Your task to perform on an android device: Go to Reddit.com Image 0: 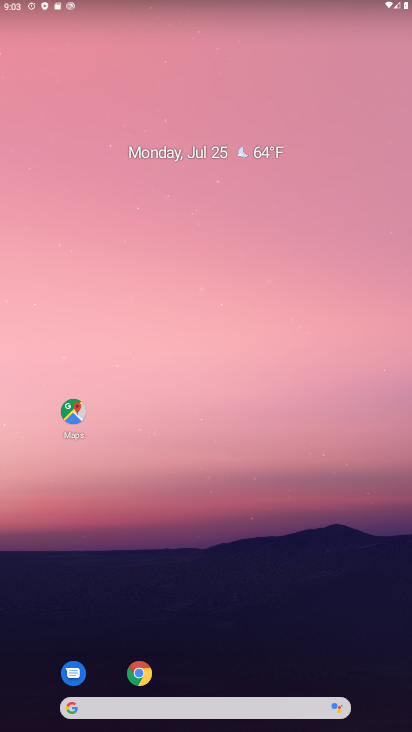
Step 0: press home button
Your task to perform on an android device: Go to Reddit.com Image 1: 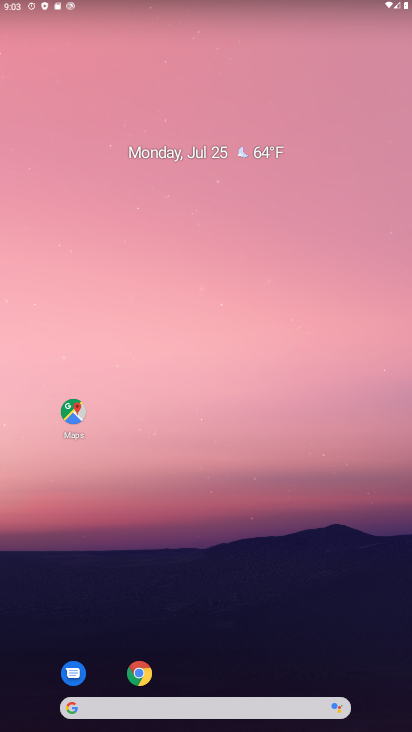
Step 1: click (135, 667)
Your task to perform on an android device: Go to Reddit.com Image 2: 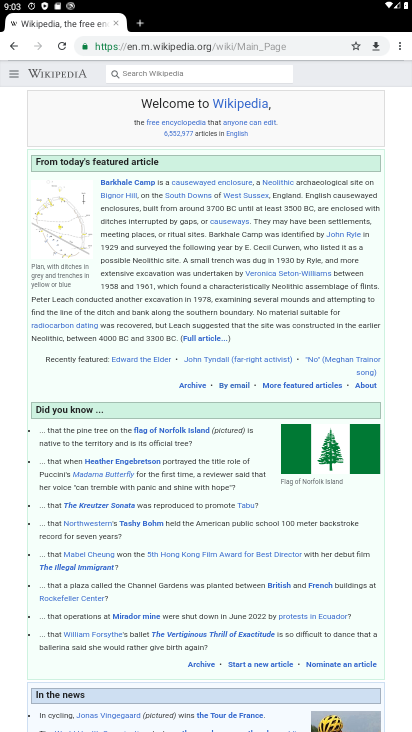
Step 2: click (144, 20)
Your task to perform on an android device: Go to Reddit.com Image 3: 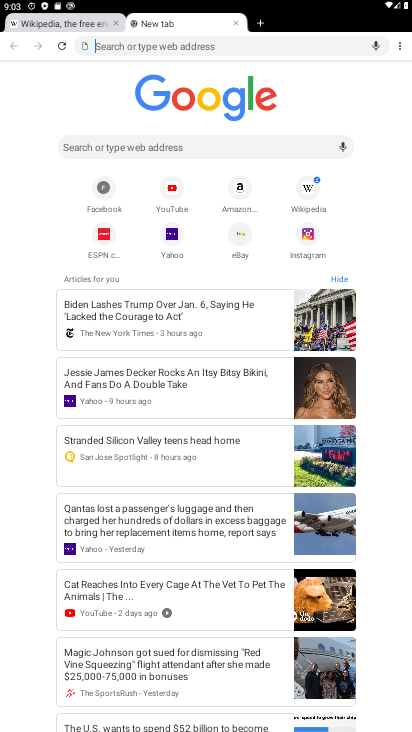
Step 3: click (103, 138)
Your task to perform on an android device: Go to Reddit.com Image 4: 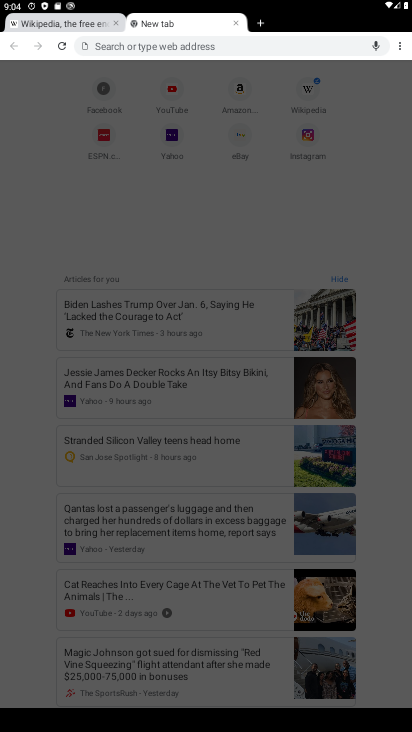
Step 4: type "reddit"
Your task to perform on an android device: Go to Reddit.com Image 5: 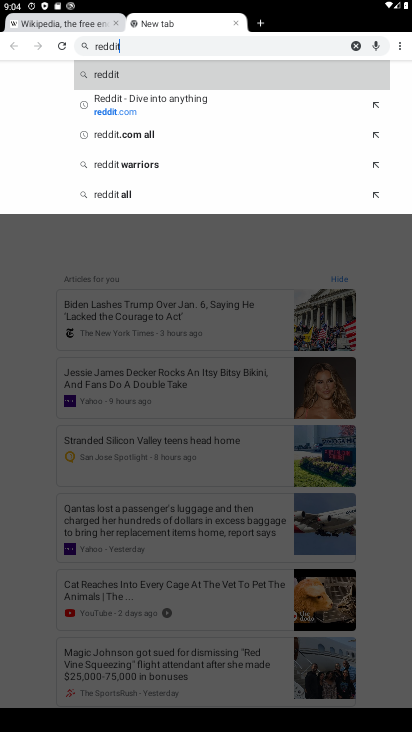
Step 5: click (147, 105)
Your task to perform on an android device: Go to Reddit.com Image 6: 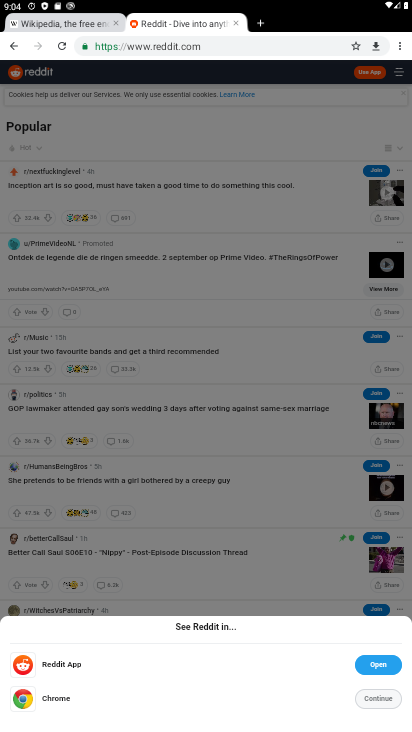
Step 6: click (380, 699)
Your task to perform on an android device: Go to Reddit.com Image 7: 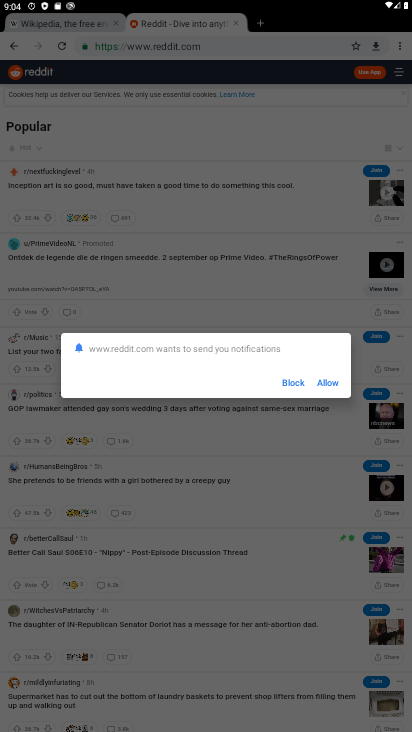
Step 7: click (319, 383)
Your task to perform on an android device: Go to Reddit.com Image 8: 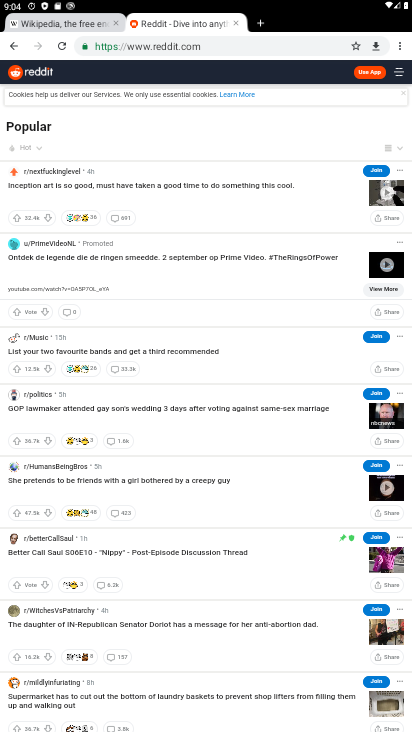
Step 8: task complete